Your task to perform on an android device: set an alarm Image 0: 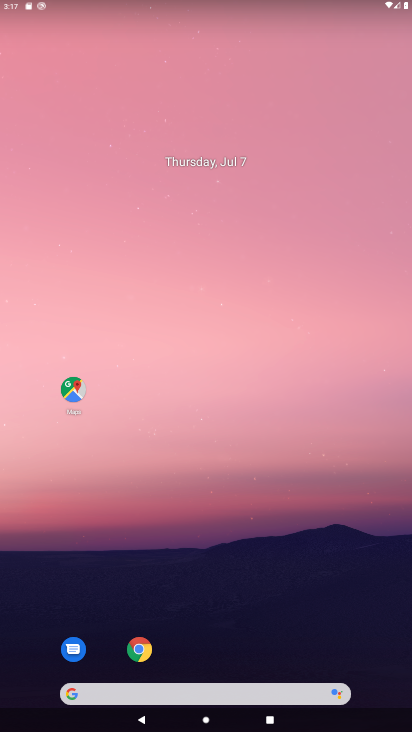
Step 0: drag from (232, 658) to (293, 64)
Your task to perform on an android device: set an alarm Image 1: 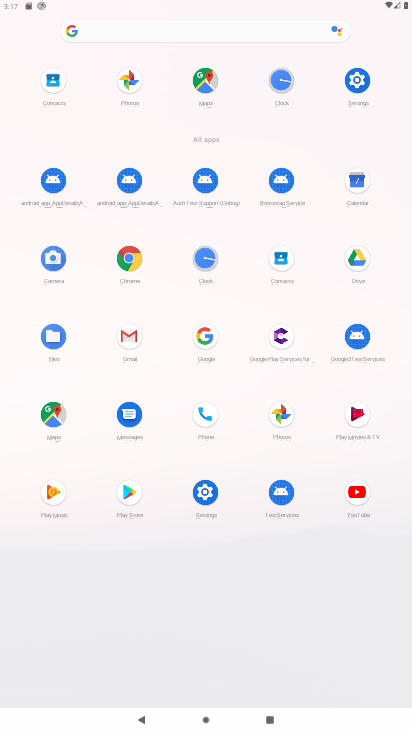
Step 1: click (287, 84)
Your task to perform on an android device: set an alarm Image 2: 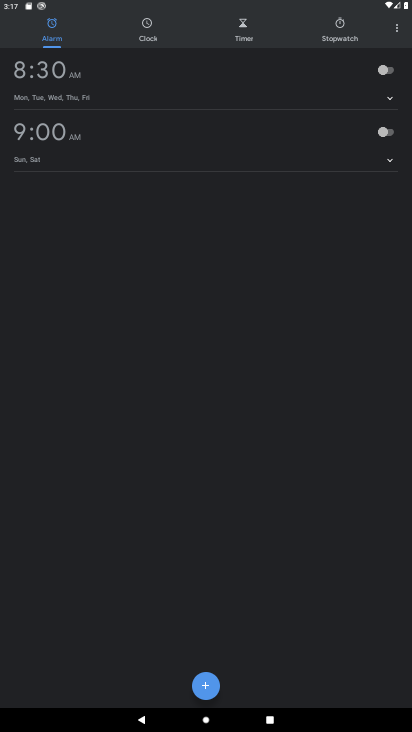
Step 2: click (43, 26)
Your task to perform on an android device: set an alarm Image 3: 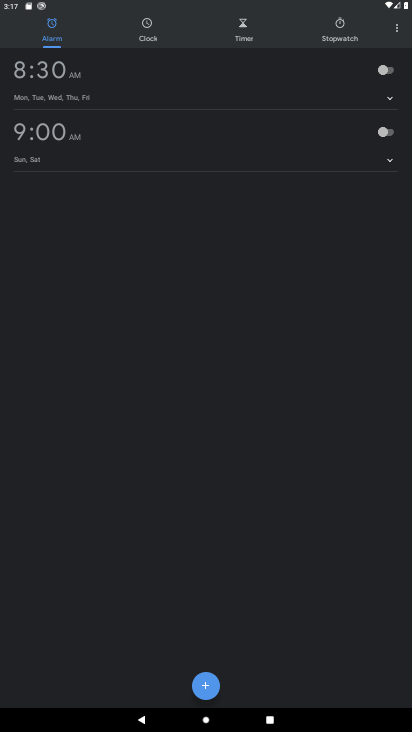
Step 3: click (394, 65)
Your task to perform on an android device: set an alarm Image 4: 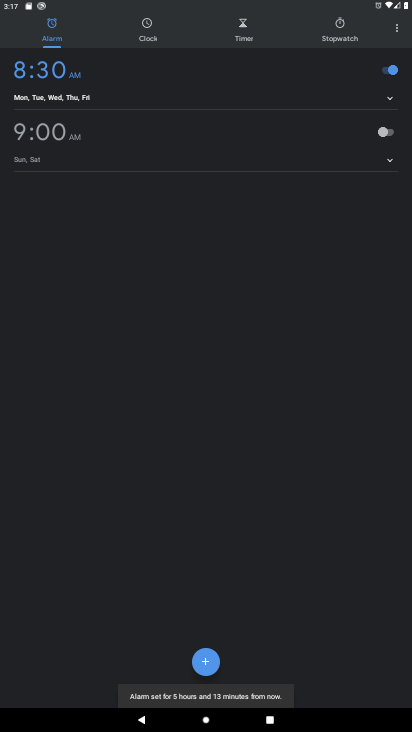
Step 4: task complete